Your task to perform on an android device: open app "Life360: Find Family & Friends" (install if not already installed), go to login, and select forgot password Image 0: 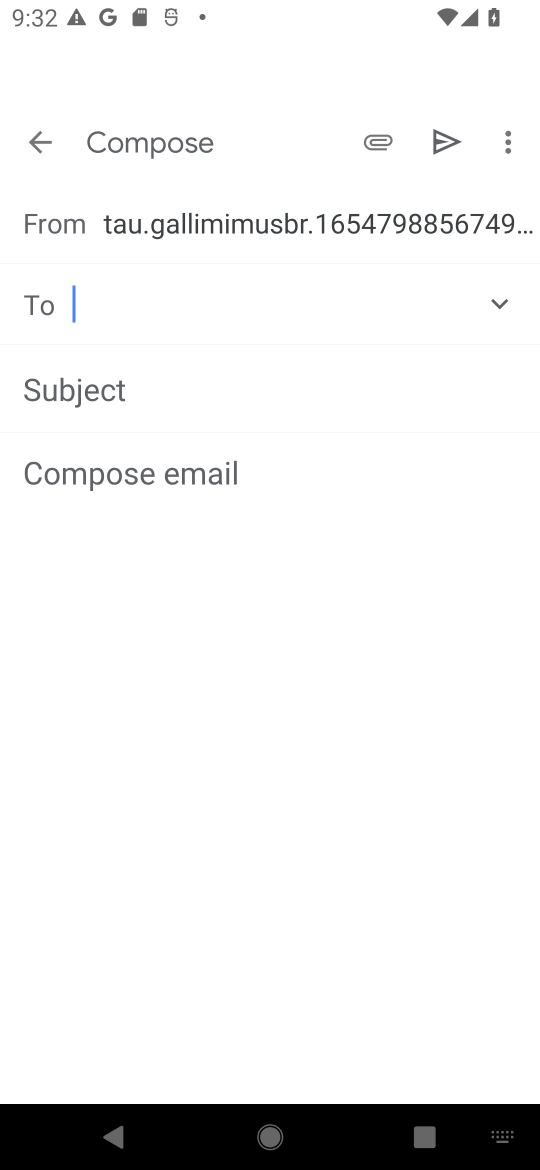
Step 0: press home button
Your task to perform on an android device: open app "Life360: Find Family & Friends" (install if not already installed), go to login, and select forgot password Image 1: 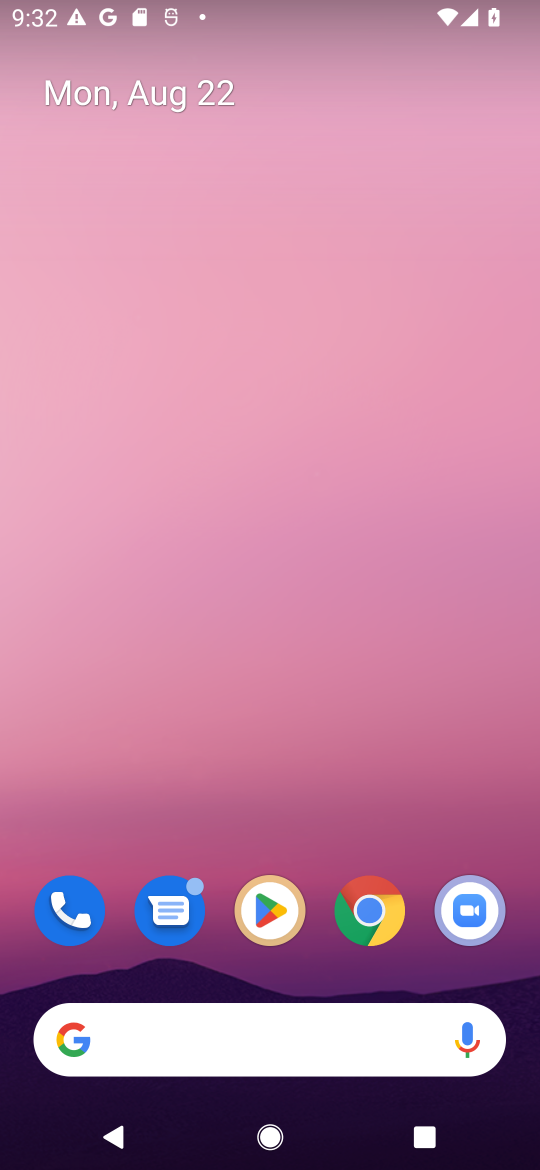
Step 1: click (274, 891)
Your task to perform on an android device: open app "Life360: Find Family & Friends" (install if not already installed), go to login, and select forgot password Image 2: 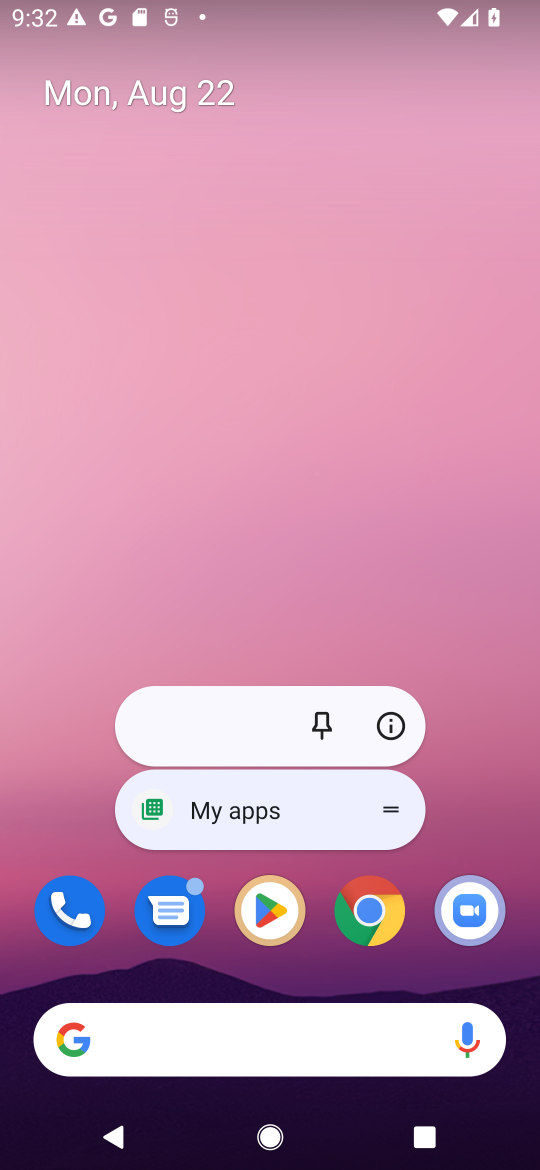
Step 2: click (274, 891)
Your task to perform on an android device: open app "Life360: Find Family & Friends" (install if not already installed), go to login, and select forgot password Image 3: 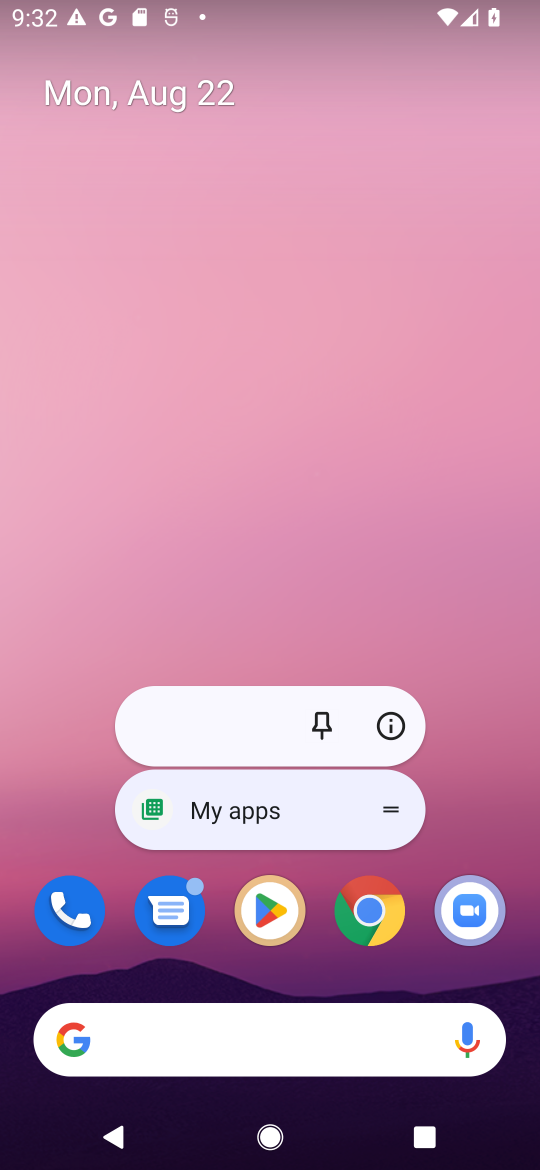
Step 3: click (272, 900)
Your task to perform on an android device: open app "Life360: Find Family & Friends" (install if not already installed), go to login, and select forgot password Image 4: 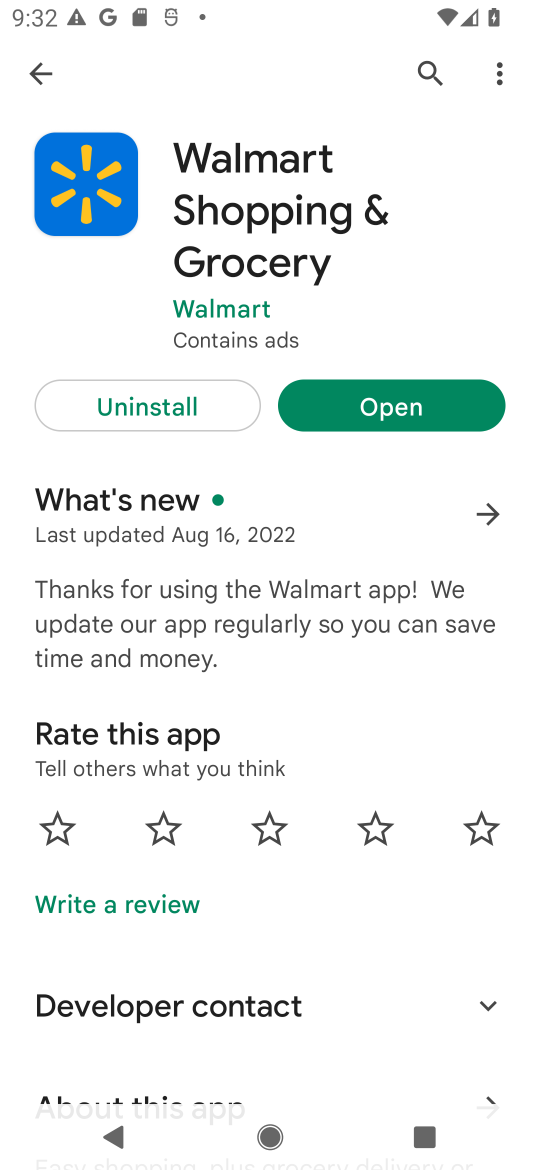
Step 4: click (378, 413)
Your task to perform on an android device: open app "Life360: Find Family & Friends" (install if not already installed), go to login, and select forgot password Image 5: 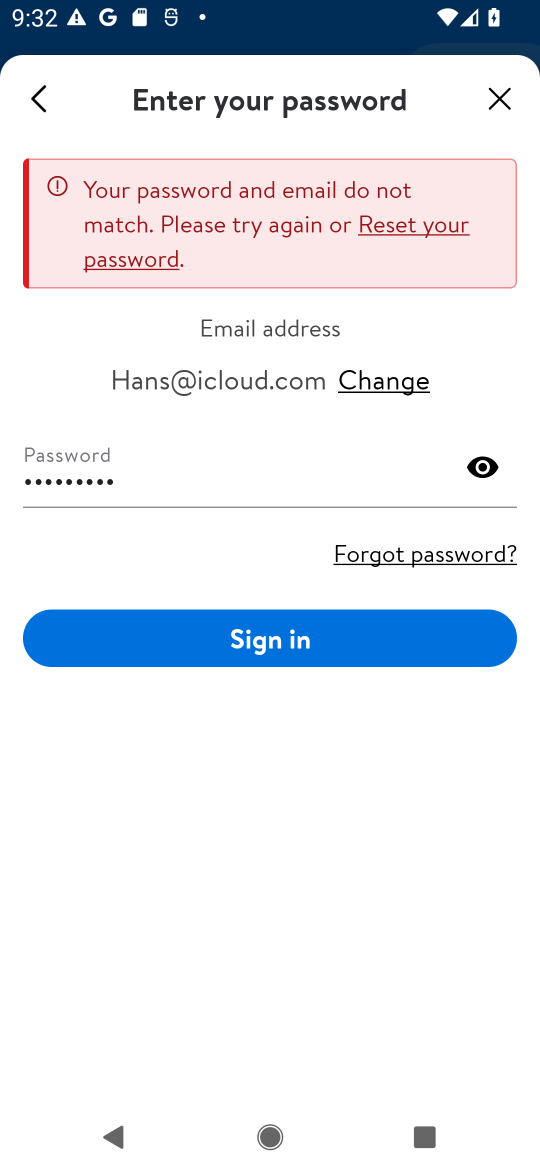
Step 5: press home button
Your task to perform on an android device: open app "Life360: Find Family & Friends" (install if not already installed), go to login, and select forgot password Image 6: 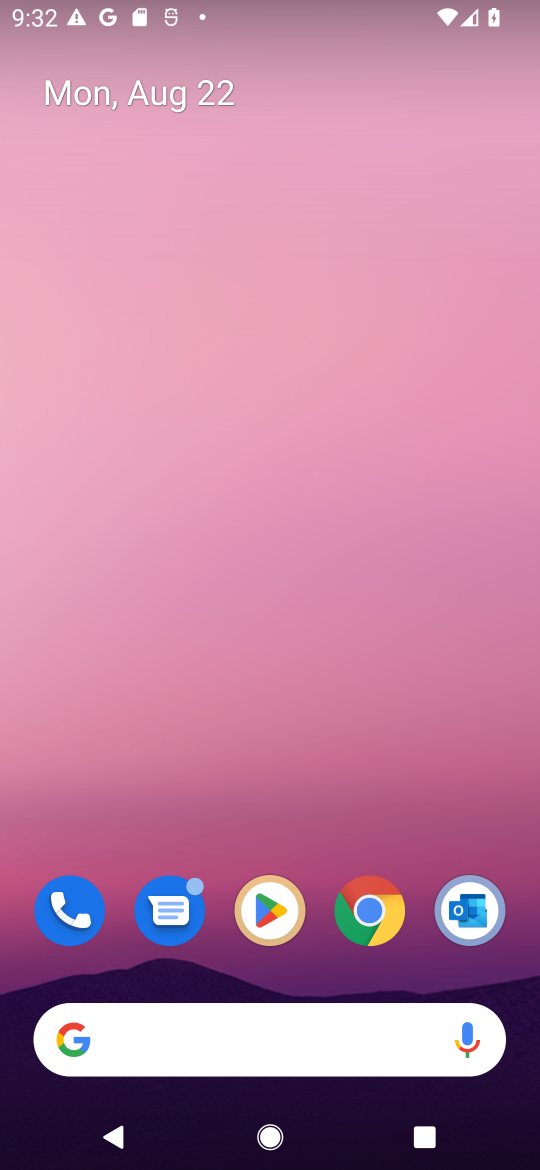
Step 6: click (253, 902)
Your task to perform on an android device: open app "Life360: Find Family & Friends" (install if not already installed), go to login, and select forgot password Image 7: 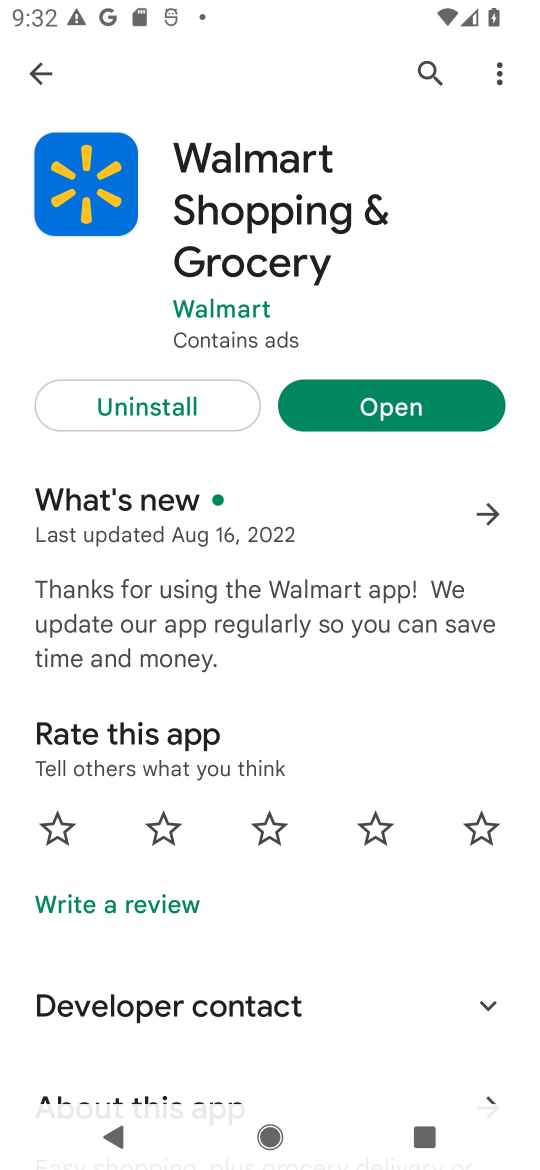
Step 7: click (415, 80)
Your task to perform on an android device: open app "Life360: Find Family & Friends" (install if not already installed), go to login, and select forgot password Image 8: 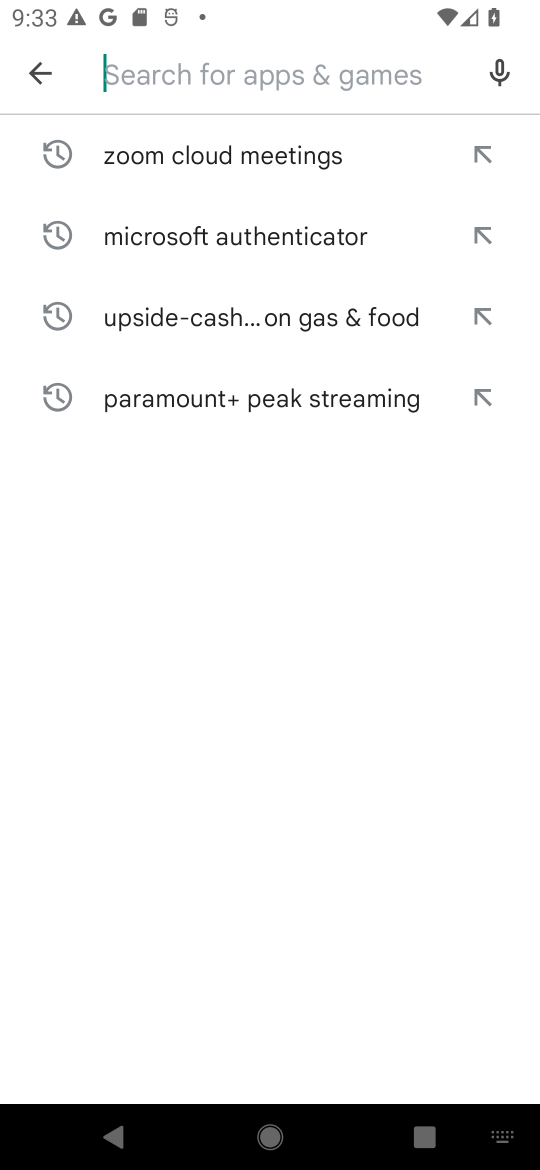
Step 8: type "Life360: Find Family & Friends"
Your task to perform on an android device: open app "Life360: Find Family & Friends" (install if not already installed), go to login, and select forgot password Image 9: 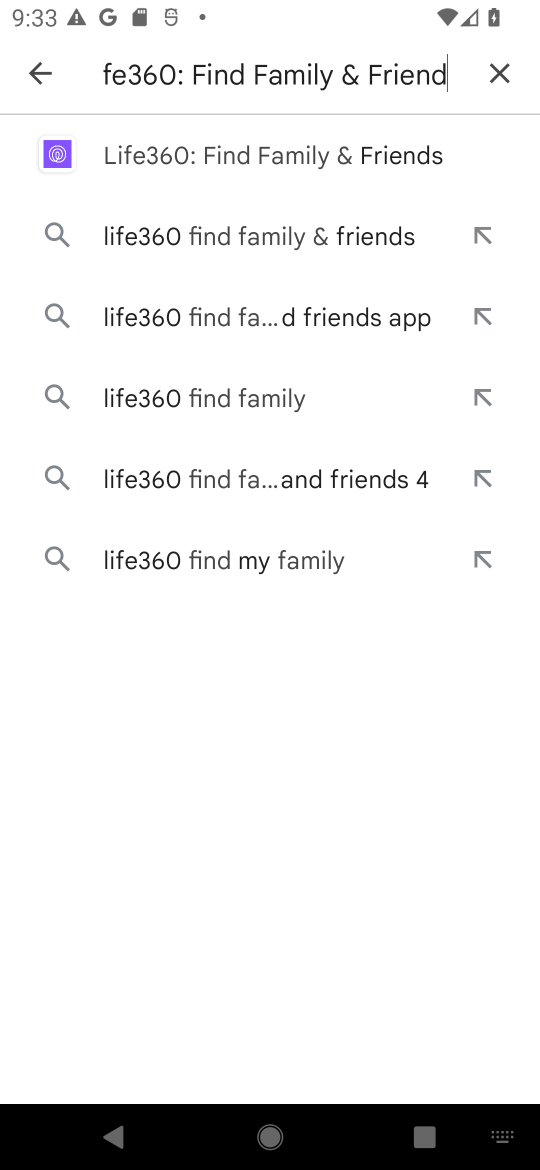
Step 9: type ""
Your task to perform on an android device: open app "Life360: Find Family & Friends" (install if not already installed), go to login, and select forgot password Image 10: 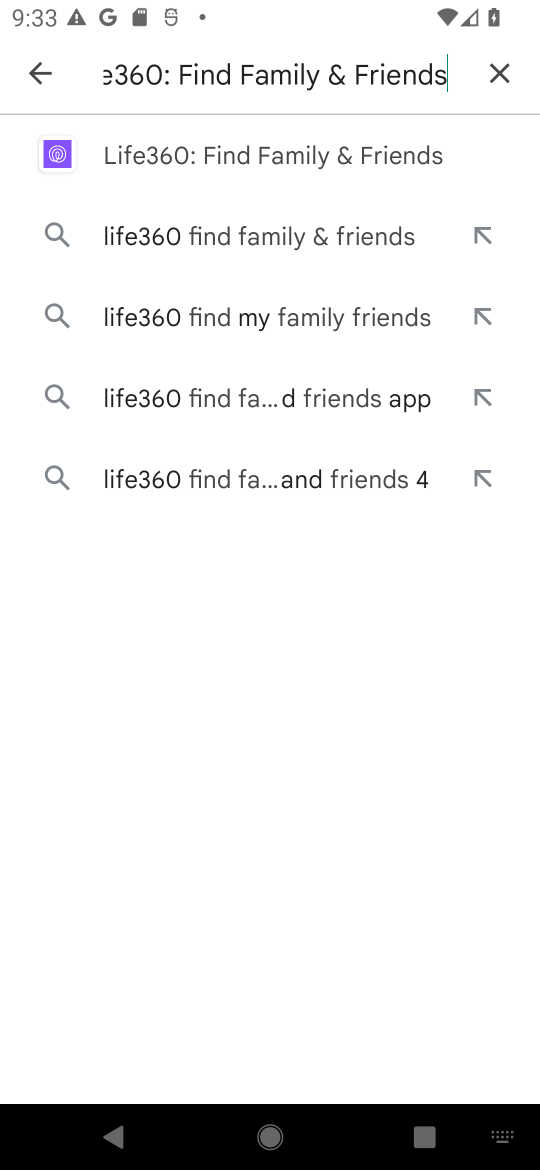
Step 10: click (194, 161)
Your task to perform on an android device: open app "Life360: Find Family & Friends" (install if not already installed), go to login, and select forgot password Image 11: 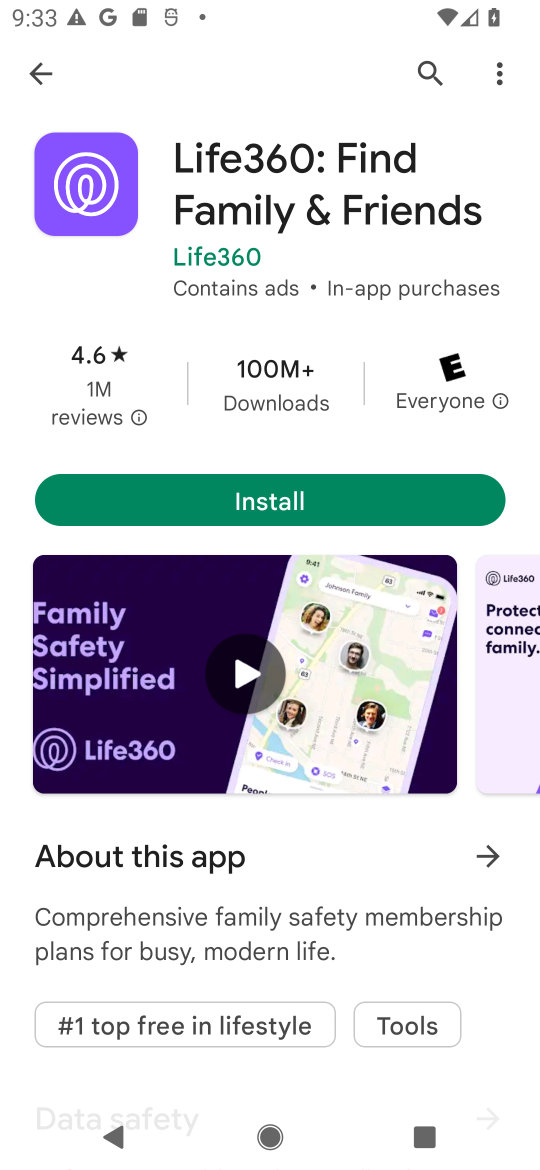
Step 11: click (256, 505)
Your task to perform on an android device: open app "Life360: Find Family & Friends" (install if not already installed), go to login, and select forgot password Image 12: 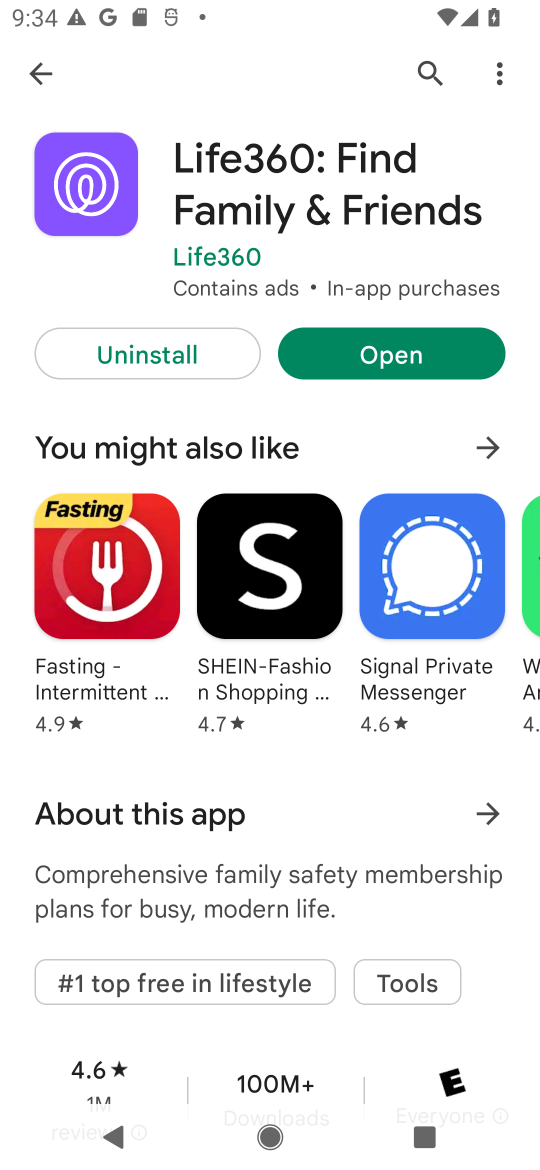
Step 12: click (445, 367)
Your task to perform on an android device: open app "Life360: Find Family & Friends" (install if not already installed), go to login, and select forgot password Image 13: 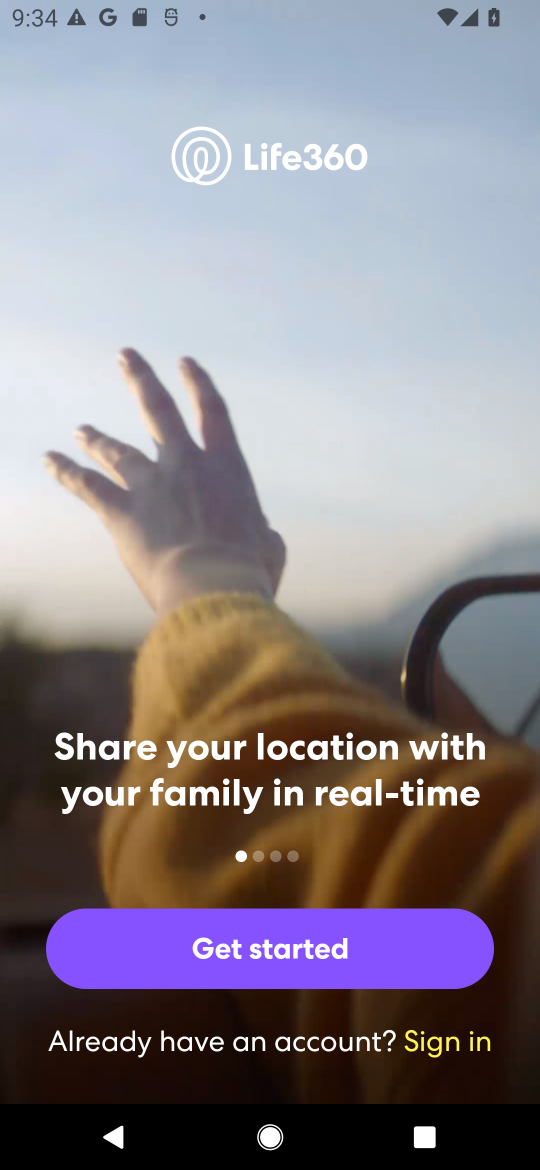
Step 13: task complete